Your task to perform on an android device: change the clock display to analog Image 0: 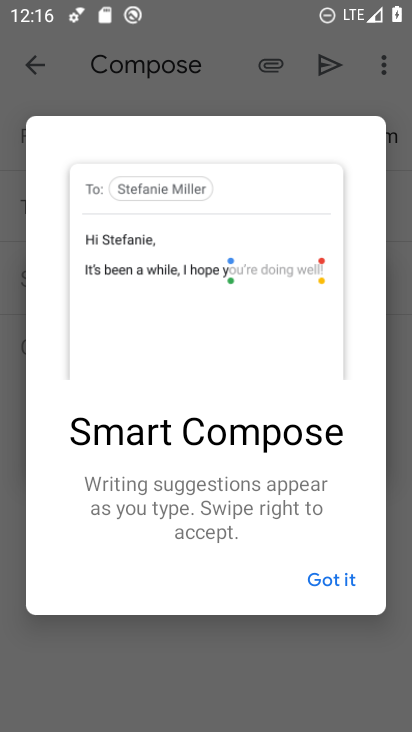
Step 0: press home button
Your task to perform on an android device: change the clock display to analog Image 1: 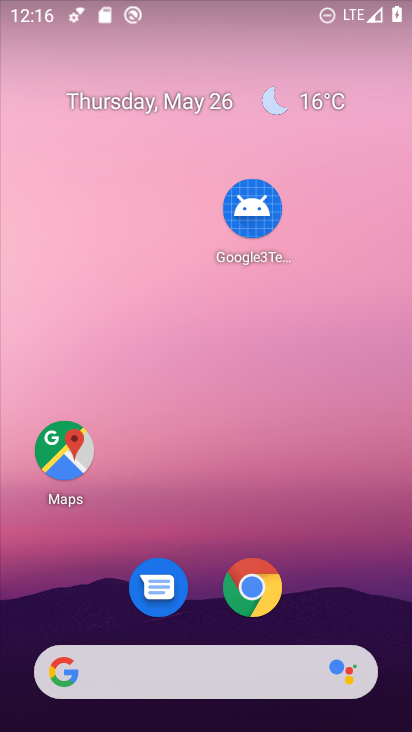
Step 1: drag from (183, 668) to (177, 86)
Your task to perform on an android device: change the clock display to analog Image 2: 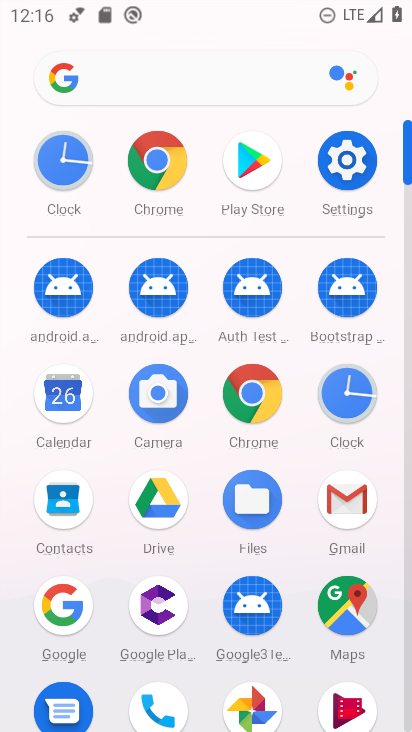
Step 2: click (325, 387)
Your task to perform on an android device: change the clock display to analog Image 3: 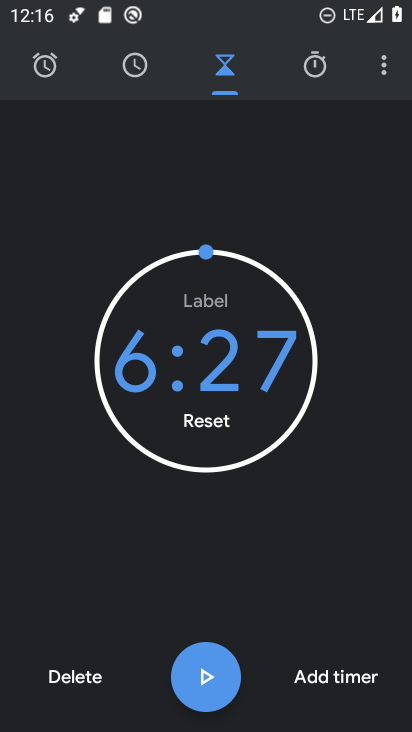
Step 3: click (380, 72)
Your task to perform on an android device: change the clock display to analog Image 4: 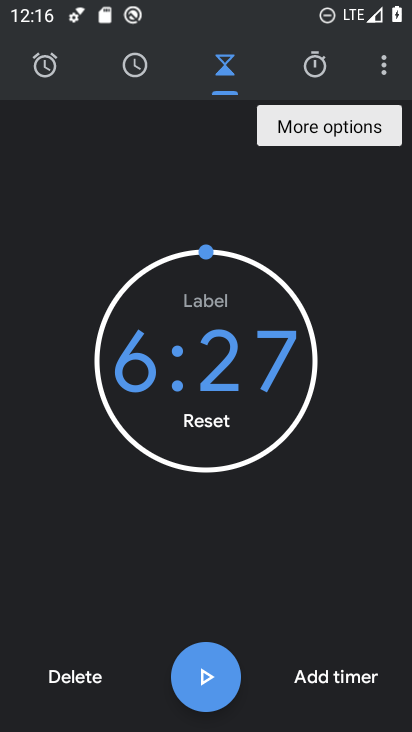
Step 4: click (380, 72)
Your task to perform on an android device: change the clock display to analog Image 5: 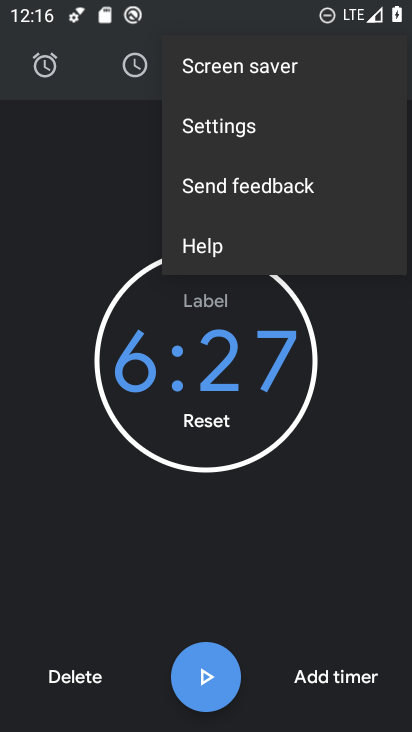
Step 5: click (229, 113)
Your task to perform on an android device: change the clock display to analog Image 6: 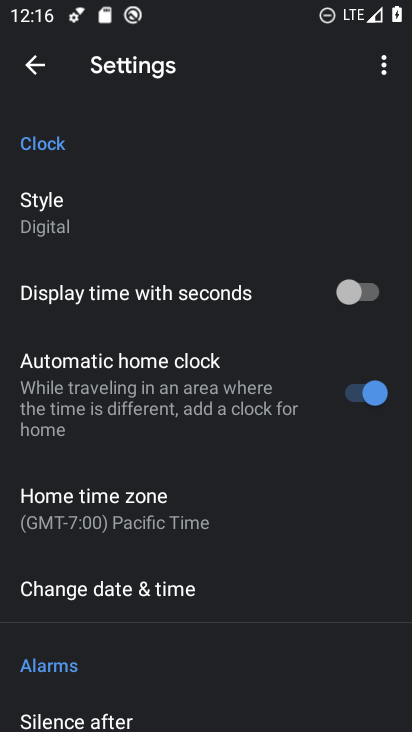
Step 6: click (79, 224)
Your task to perform on an android device: change the clock display to analog Image 7: 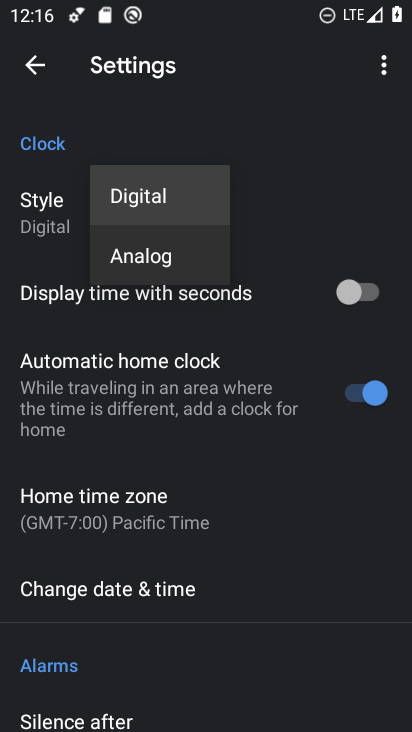
Step 7: click (121, 248)
Your task to perform on an android device: change the clock display to analog Image 8: 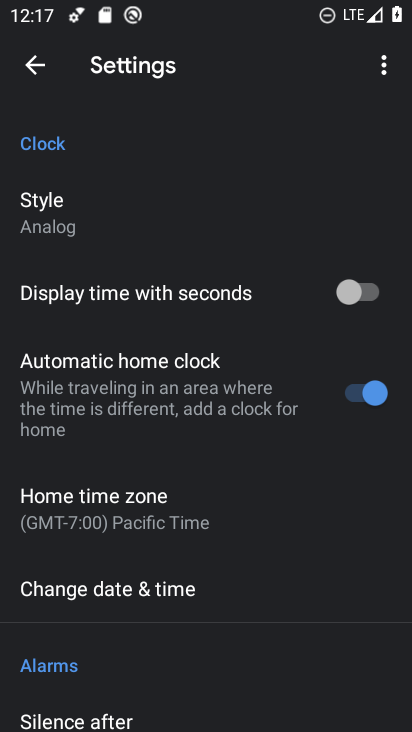
Step 8: task complete